Your task to perform on an android device: turn notification dots off Image 0: 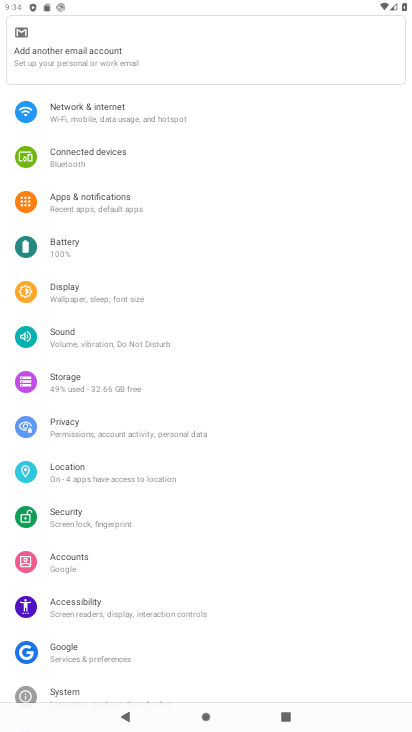
Step 0: press home button
Your task to perform on an android device: turn notification dots off Image 1: 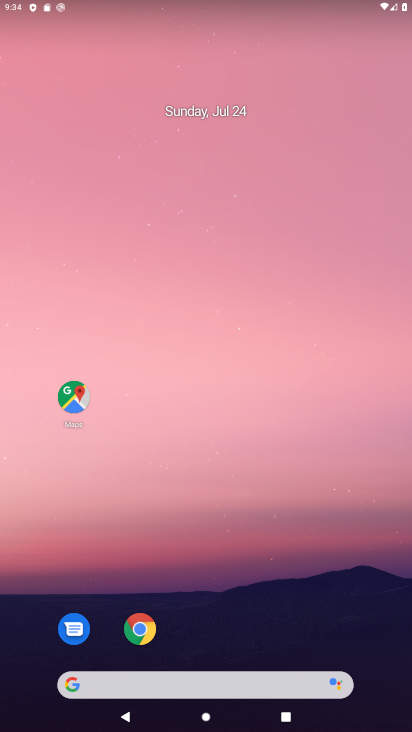
Step 1: drag from (177, 687) to (221, 33)
Your task to perform on an android device: turn notification dots off Image 2: 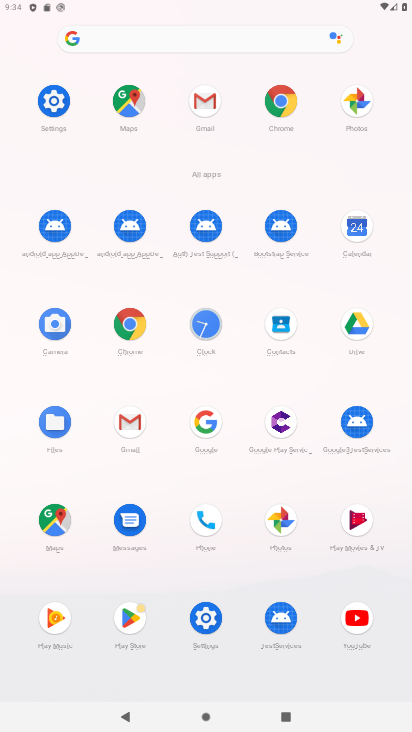
Step 2: click (56, 101)
Your task to perform on an android device: turn notification dots off Image 3: 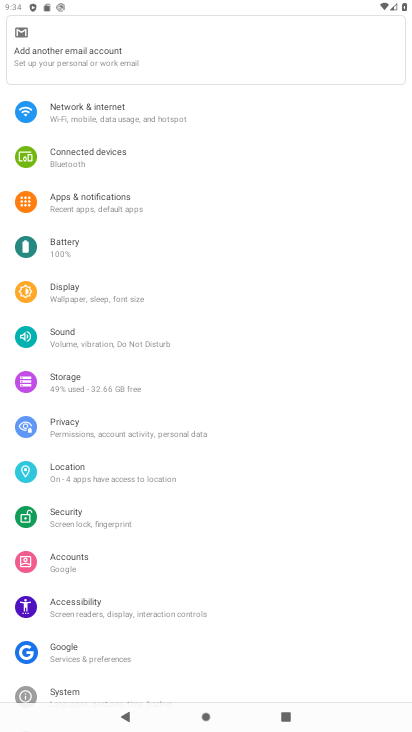
Step 3: click (78, 202)
Your task to perform on an android device: turn notification dots off Image 4: 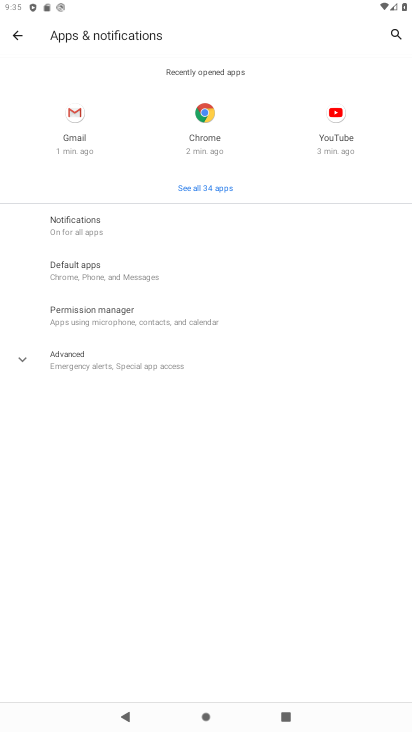
Step 4: click (78, 223)
Your task to perform on an android device: turn notification dots off Image 5: 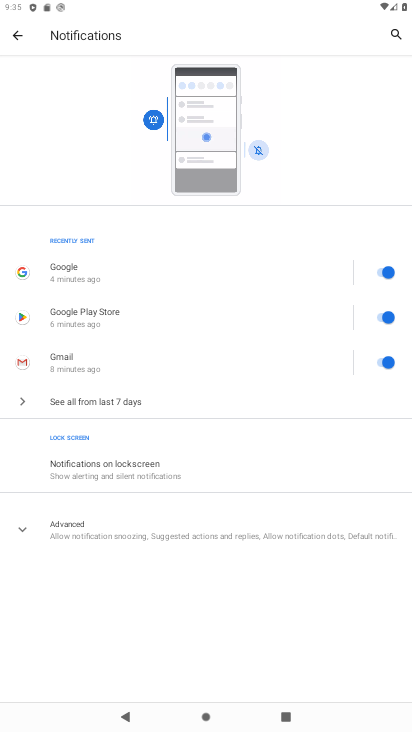
Step 5: click (110, 533)
Your task to perform on an android device: turn notification dots off Image 6: 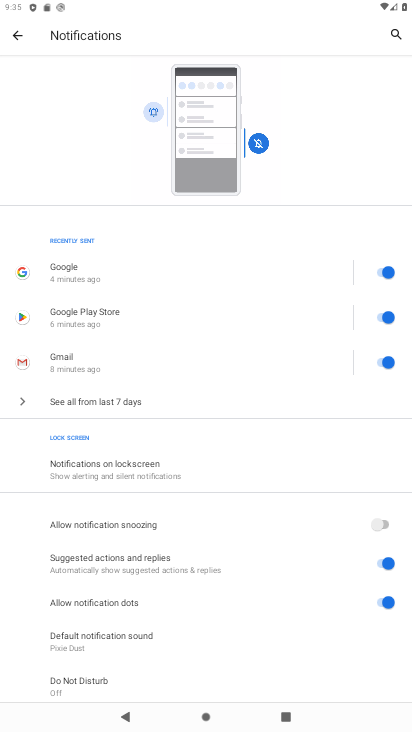
Step 6: click (379, 603)
Your task to perform on an android device: turn notification dots off Image 7: 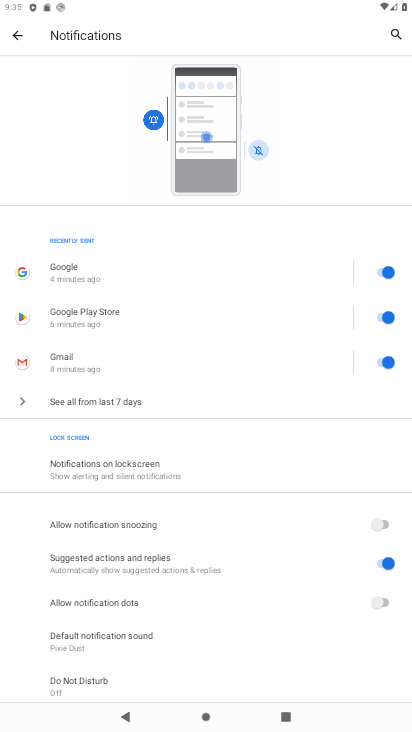
Step 7: task complete